Your task to perform on an android device: Go to location settings Image 0: 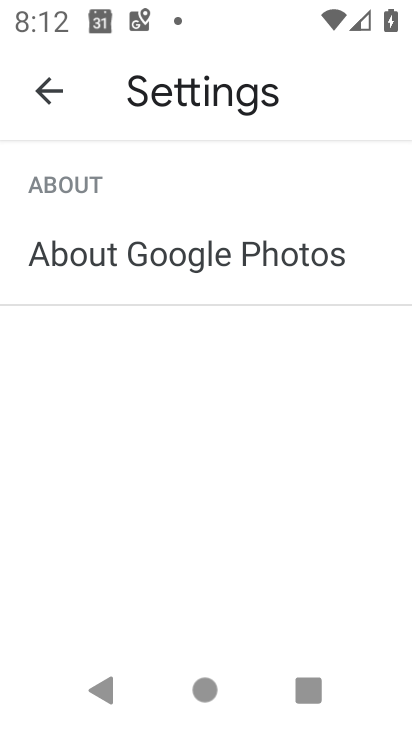
Step 0: press home button
Your task to perform on an android device: Go to location settings Image 1: 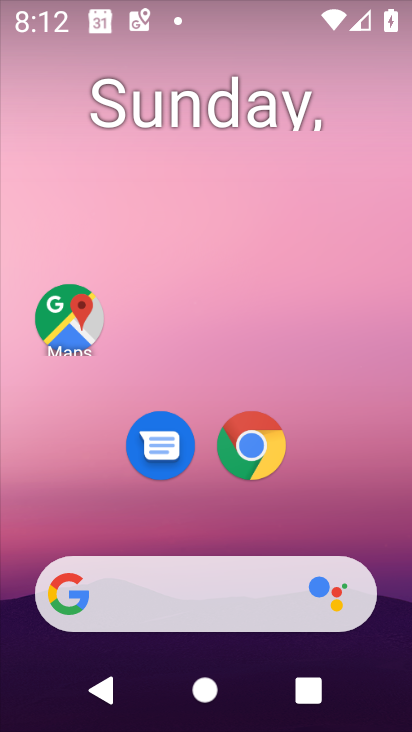
Step 1: drag from (35, 721) to (290, 151)
Your task to perform on an android device: Go to location settings Image 2: 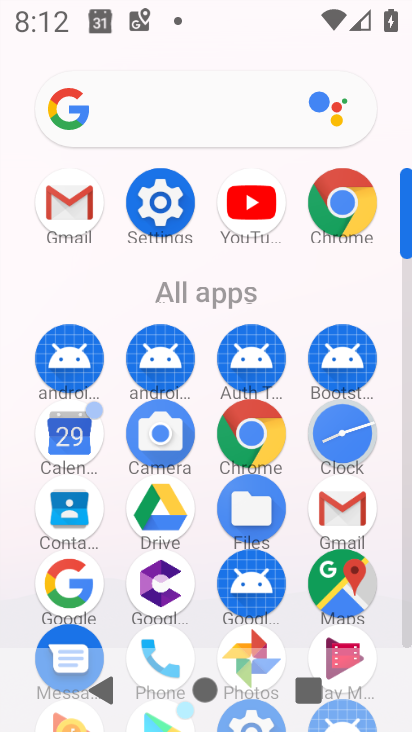
Step 2: click (162, 227)
Your task to perform on an android device: Go to location settings Image 3: 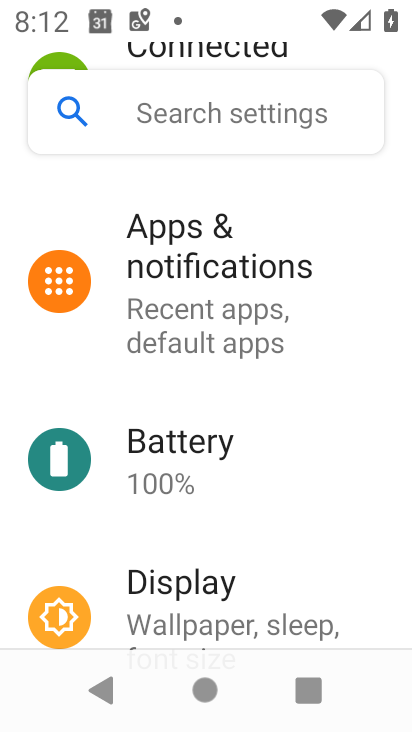
Step 3: drag from (21, 491) to (239, 142)
Your task to perform on an android device: Go to location settings Image 4: 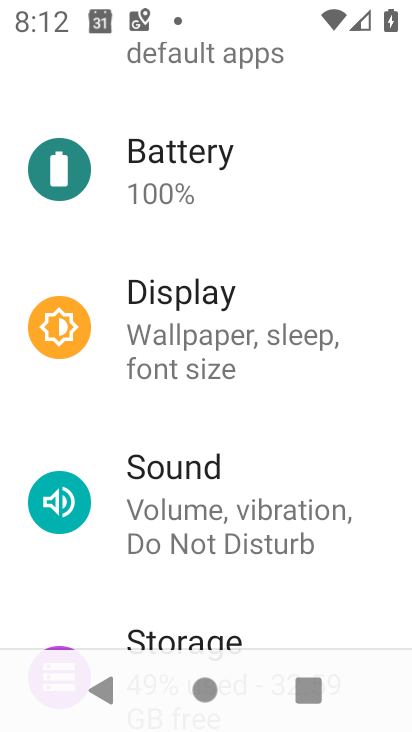
Step 4: drag from (13, 532) to (262, 103)
Your task to perform on an android device: Go to location settings Image 5: 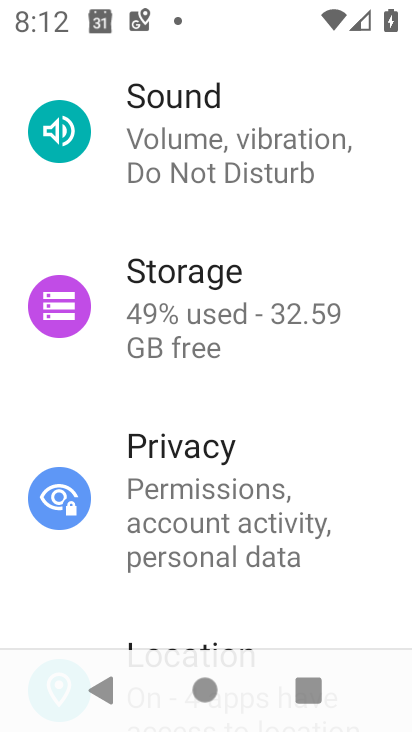
Step 5: drag from (6, 563) to (263, 155)
Your task to perform on an android device: Go to location settings Image 6: 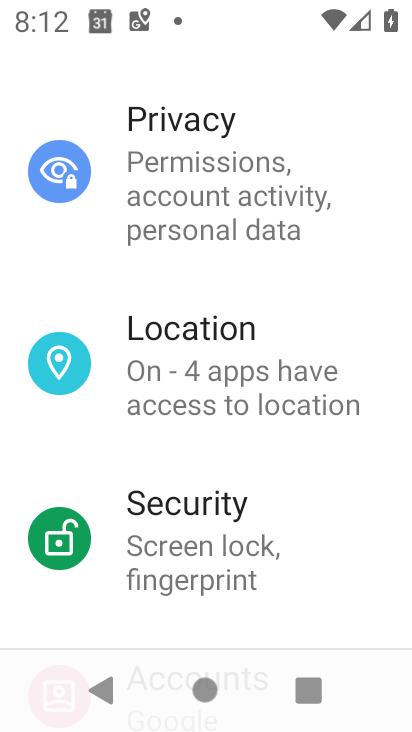
Step 6: click (194, 391)
Your task to perform on an android device: Go to location settings Image 7: 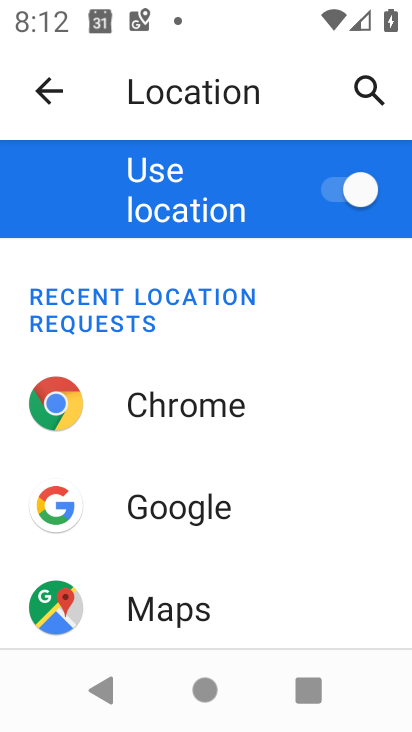
Step 7: task complete